Your task to perform on an android device: turn off smart reply in the gmail app Image 0: 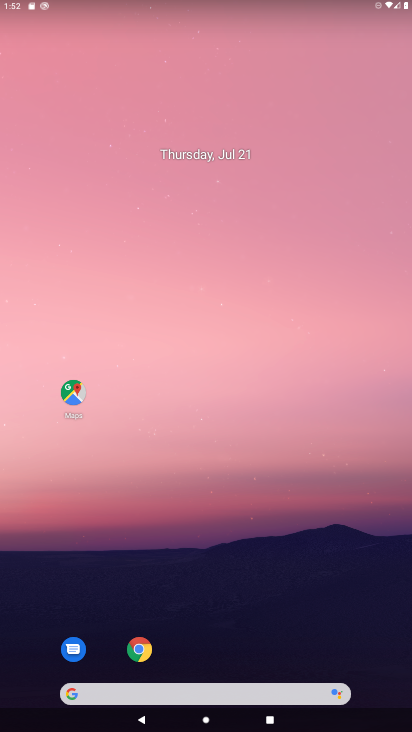
Step 0: drag from (278, 619) to (201, 0)
Your task to perform on an android device: turn off smart reply in the gmail app Image 1: 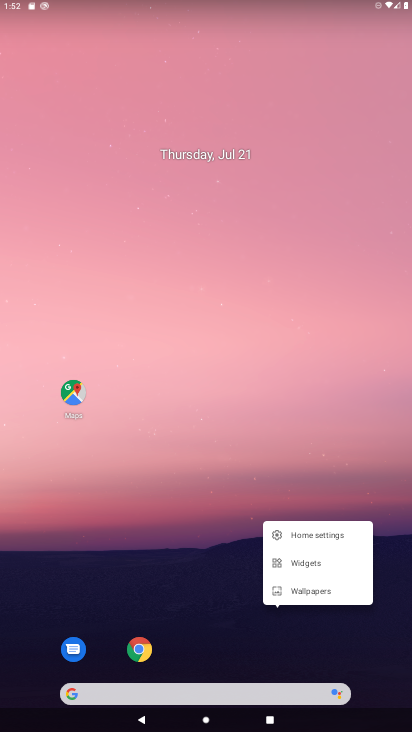
Step 1: drag from (281, 633) to (222, 242)
Your task to perform on an android device: turn off smart reply in the gmail app Image 2: 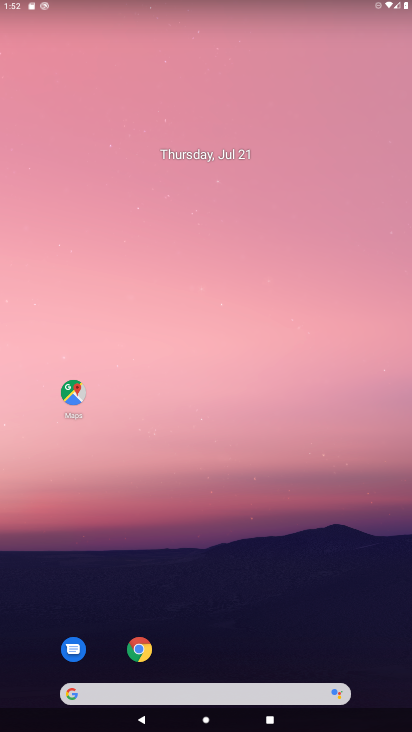
Step 2: drag from (263, 539) to (242, 65)
Your task to perform on an android device: turn off smart reply in the gmail app Image 3: 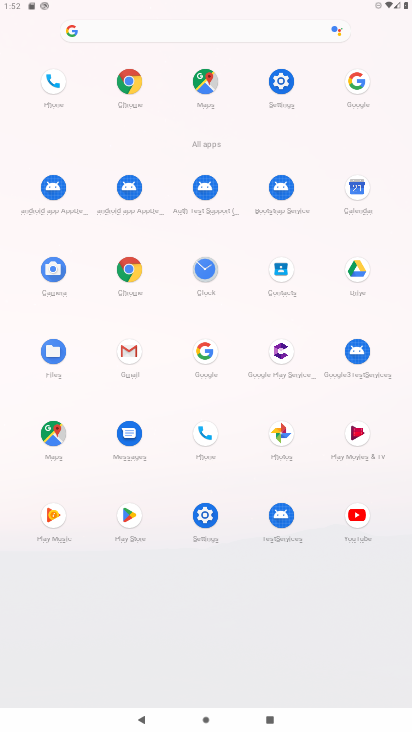
Step 3: click (126, 357)
Your task to perform on an android device: turn off smart reply in the gmail app Image 4: 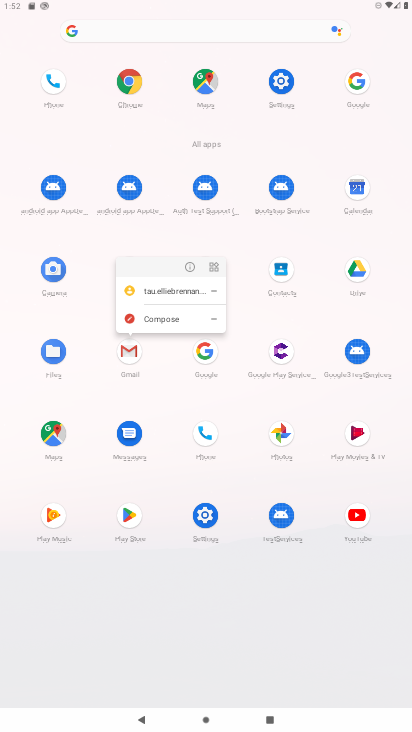
Step 4: click (126, 357)
Your task to perform on an android device: turn off smart reply in the gmail app Image 5: 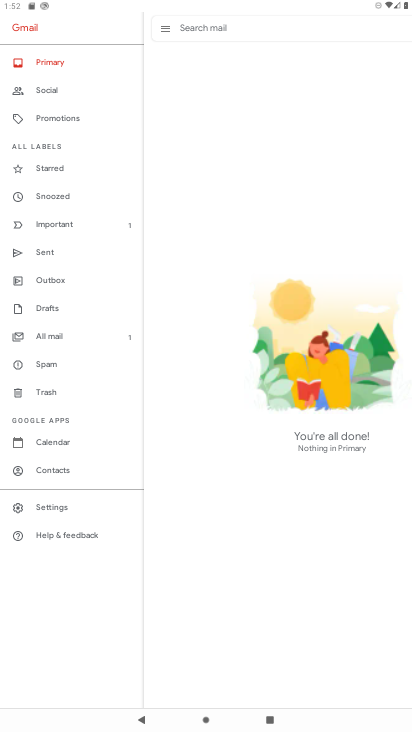
Step 5: click (50, 507)
Your task to perform on an android device: turn off smart reply in the gmail app Image 6: 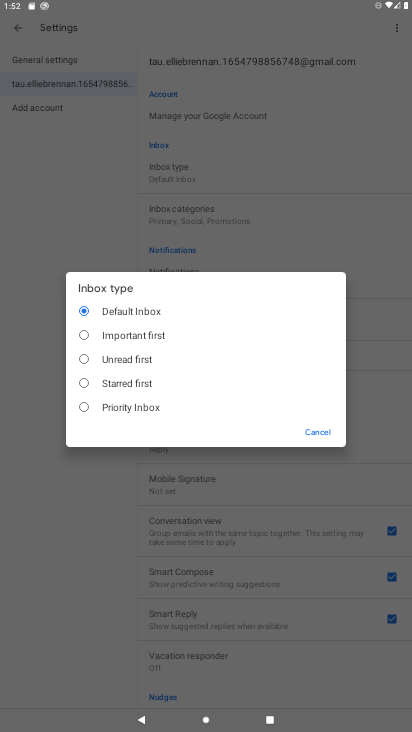
Step 6: click (319, 435)
Your task to perform on an android device: turn off smart reply in the gmail app Image 7: 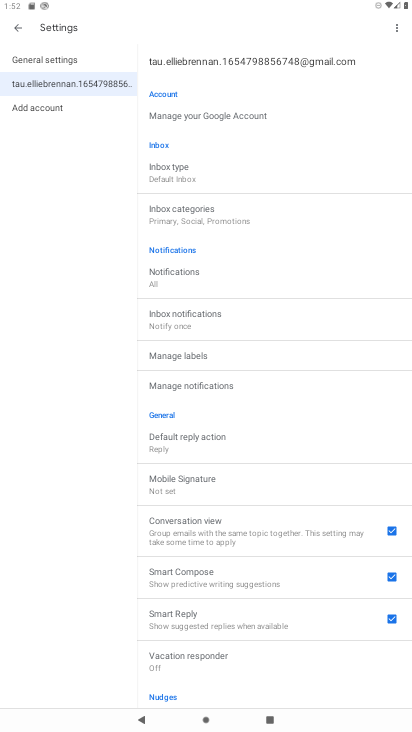
Step 7: drag from (234, 529) to (283, 286)
Your task to perform on an android device: turn off smart reply in the gmail app Image 8: 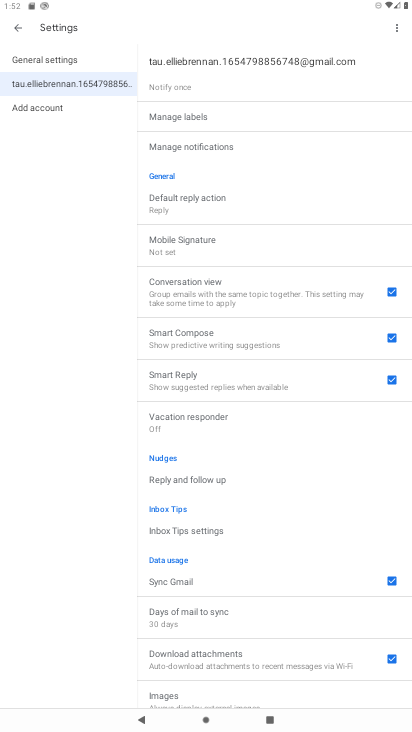
Step 8: click (389, 383)
Your task to perform on an android device: turn off smart reply in the gmail app Image 9: 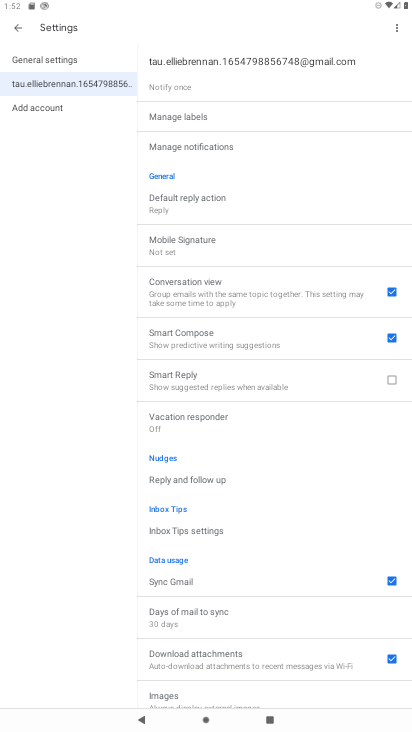
Step 9: task complete